Your task to perform on an android device: allow cookies in the chrome app Image 0: 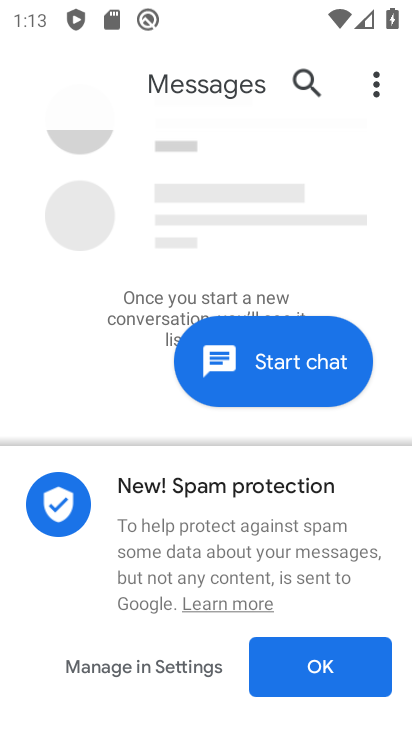
Step 0: drag from (286, 685) to (216, 437)
Your task to perform on an android device: allow cookies in the chrome app Image 1: 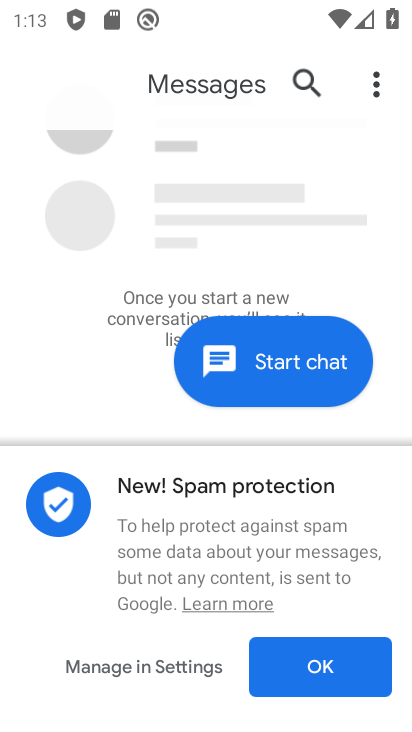
Step 1: press home button
Your task to perform on an android device: allow cookies in the chrome app Image 2: 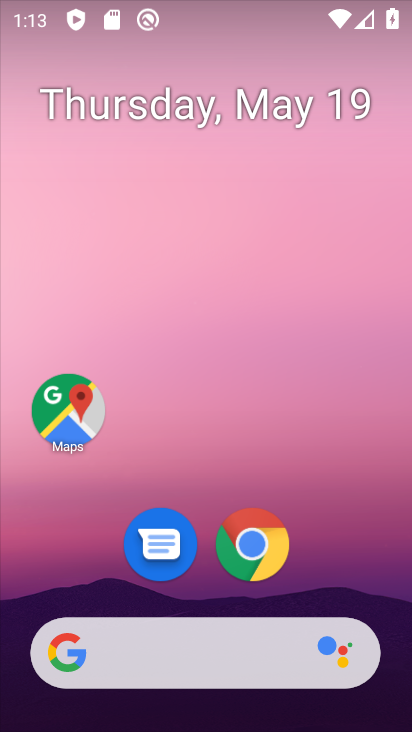
Step 2: drag from (250, 687) to (217, 223)
Your task to perform on an android device: allow cookies in the chrome app Image 3: 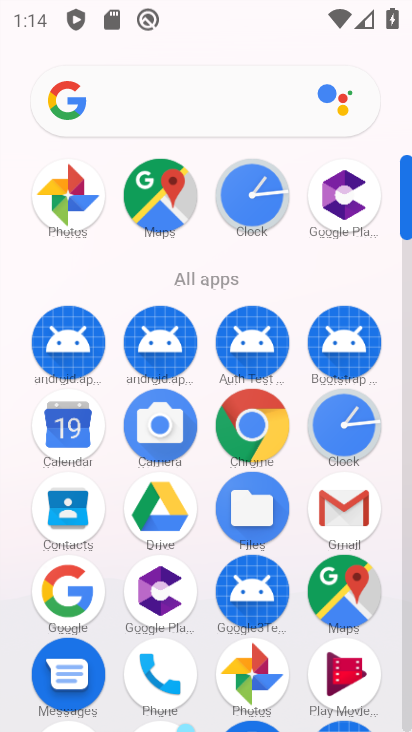
Step 3: click (249, 424)
Your task to perform on an android device: allow cookies in the chrome app Image 4: 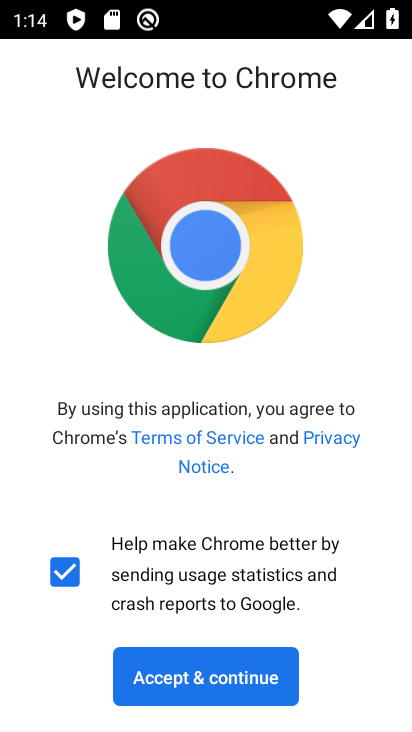
Step 4: click (221, 676)
Your task to perform on an android device: allow cookies in the chrome app Image 5: 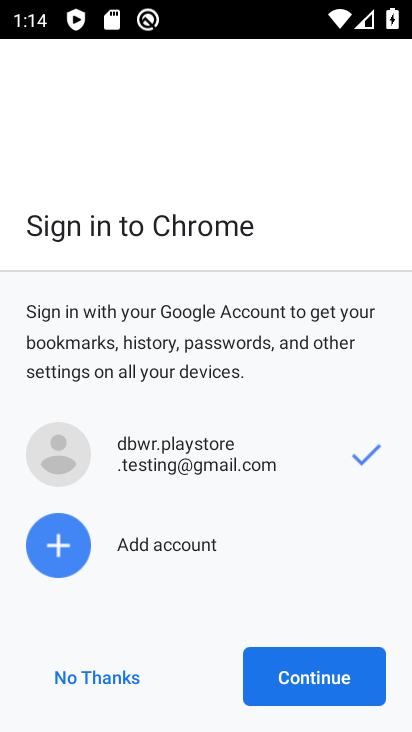
Step 5: click (289, 653)
Your task to perform on an android device: allow cookies in the chrome app Image 6: 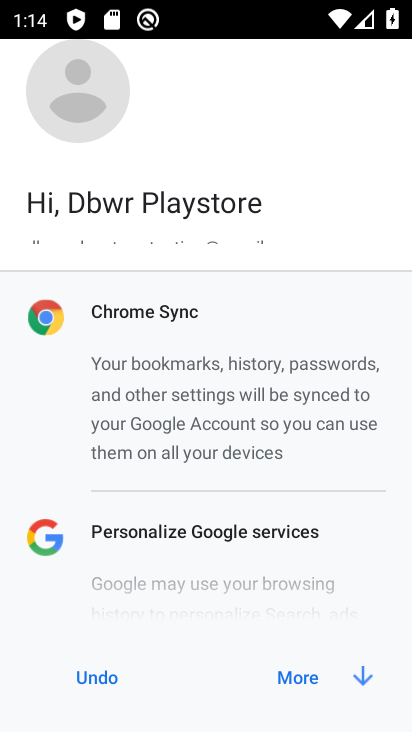
Step 6: click (372, 679)
Your task to perform on an android device: allow cookies in the chrome app Image 7: 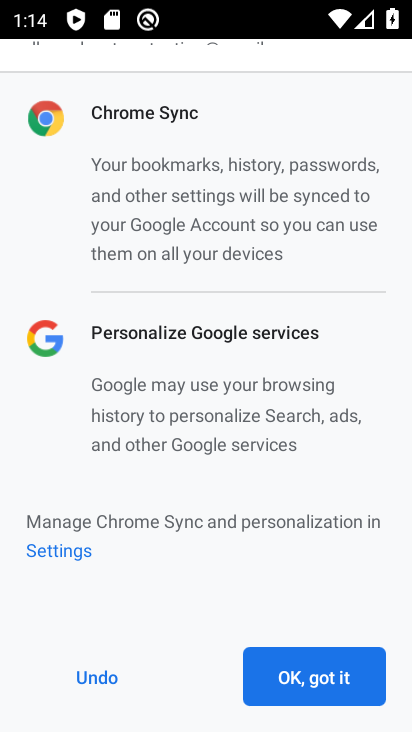
Step 7: click (317, 670)
Your task to perform on an android device: allow cookies in the chrome app Image 8: 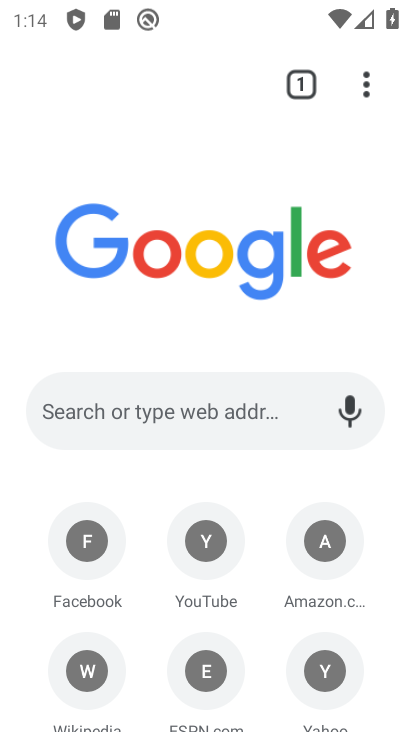
Step 8: click (375, 69)
Your task to perform on an android device: allow cookies in the chrome app Image 9: 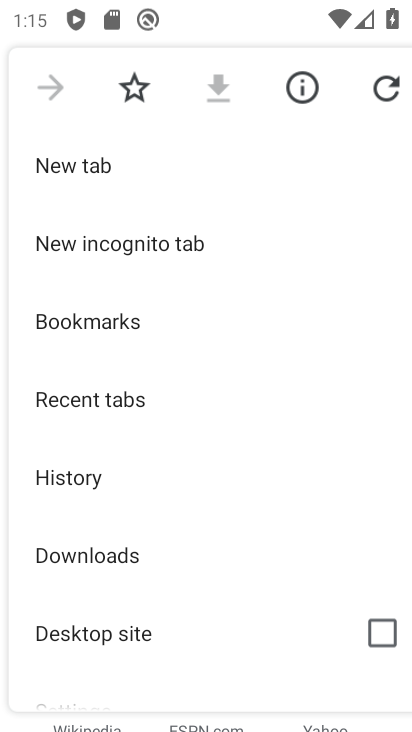
Step 9: drag from (128, 590) to (137, 466)
Your task to perform on an android device: allow cookies in the chrome app Image 10: 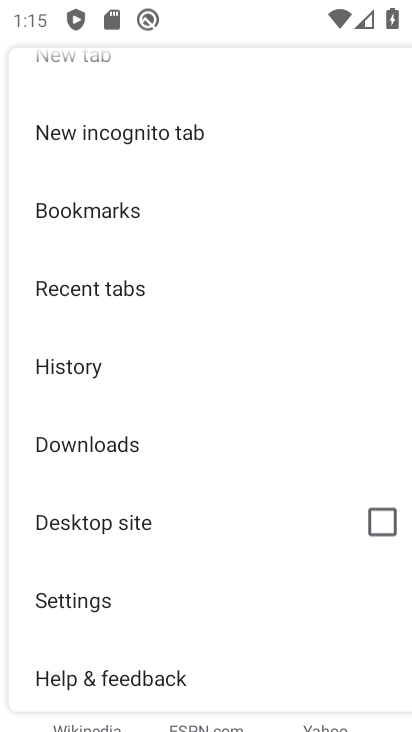
Step 10: click (74, 595)
Your task to perform on an android device: allow cookies in the chrome app Image 11: 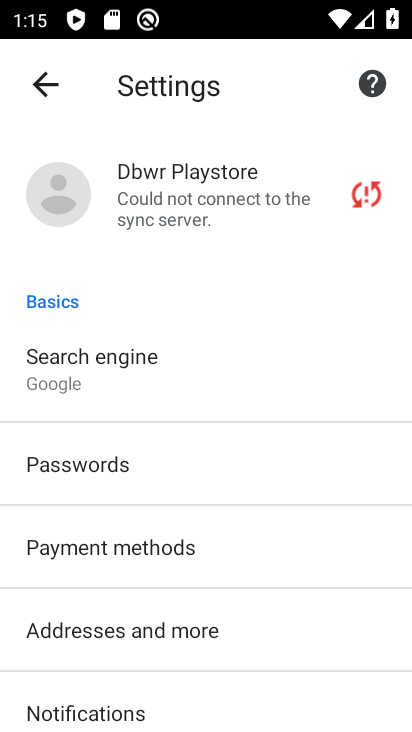
Step 11: drag from (75, 599) to (161, 356)
Your task to perform on an android device: allow cookies in the chrome app Image 12: 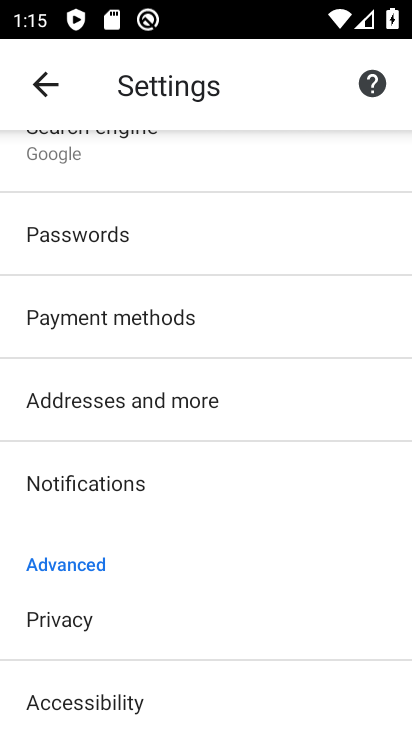
Step 12: drag from (147, 575) to (182, 363)
Your task to perform on an android device: allow cookies in the chrome app Image 13: 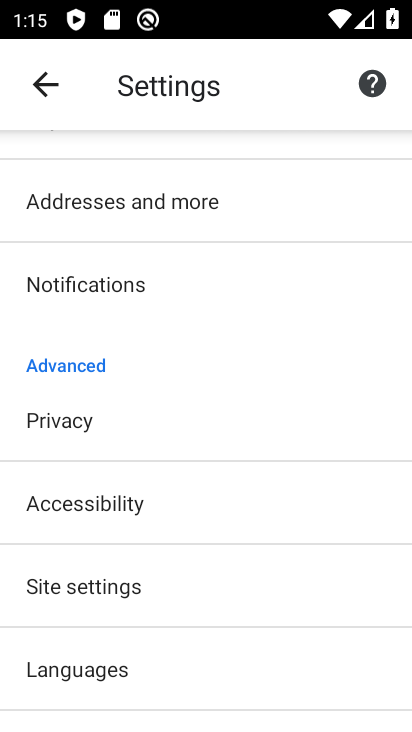
Step 13: click (53, 589)
Your task to perform on an android device: allow cookies in the chrome app Image 14: 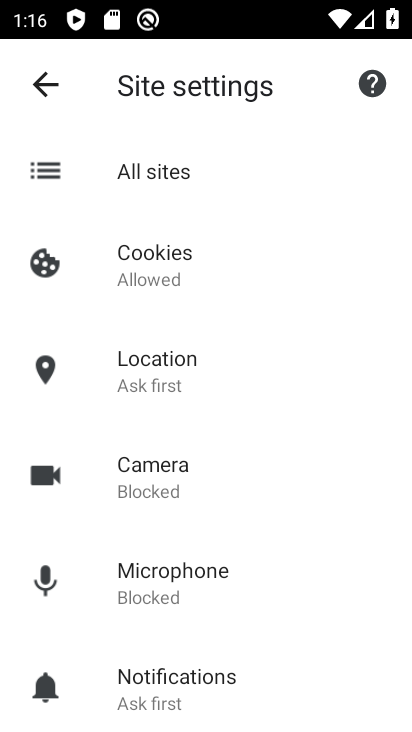
Step 14: click (183, 280)
Your task to perform on an android device: allow cookies in the chrome app Image 15: 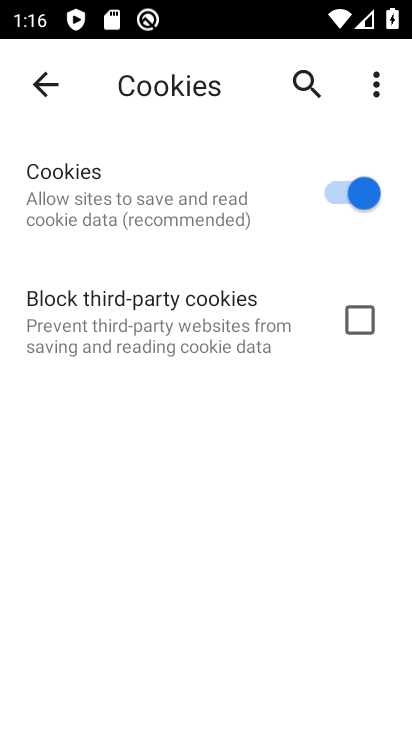
Step 15: click (341, 211)
Your task to perform on an android device: allow cookies in the chrome app Image 16: 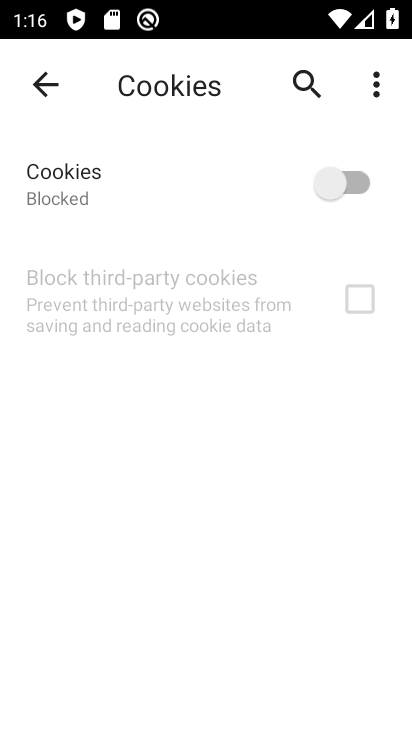
Step 16: click (351, 207)
Your task to perform on an android device: allow cookies in the chrome app Image 17: 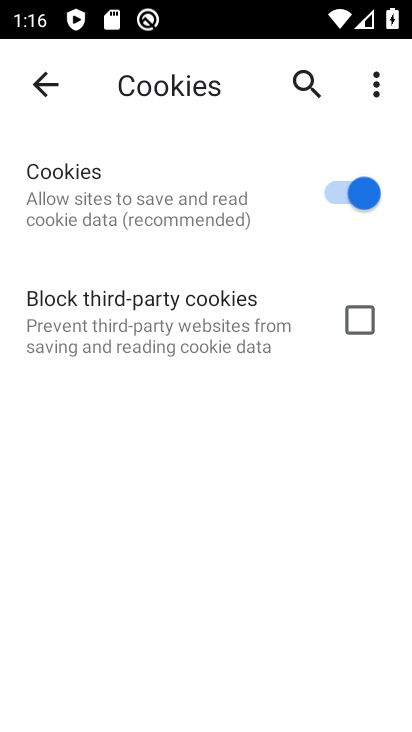
Step 17: task complete